Your task to perform on an android device: toggle javascript in the chrome app Image 0: 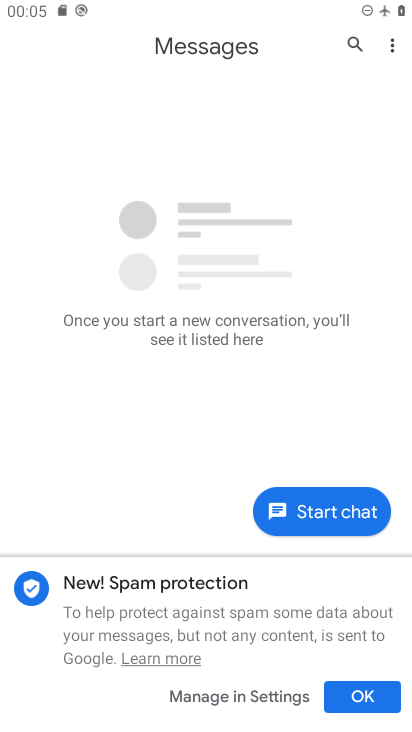
Step 0: press home button
Your task to perform on an android device: toggle javascript in the chrome app Image 1: 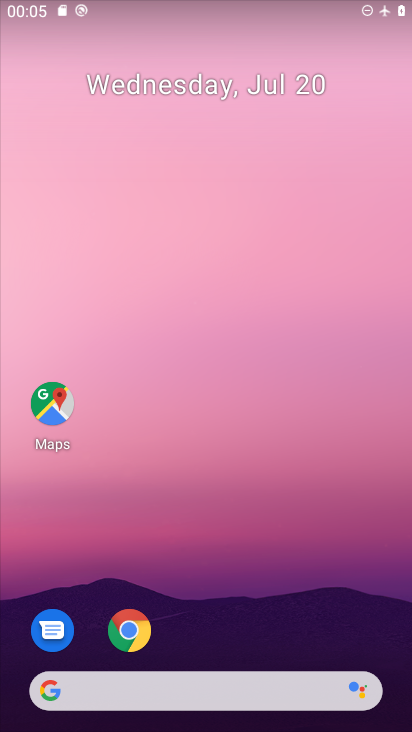
Step 1: click (139, 628)
Your task to perform on an android device: toggle javascript in the chrome app Image 2: 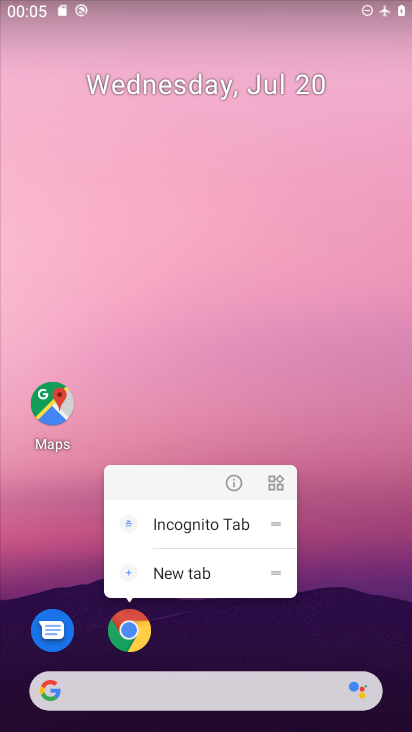
Step 2: click (139, 628)
Your task to perform on an android device: toggle javascript in the chrome app Image 3: 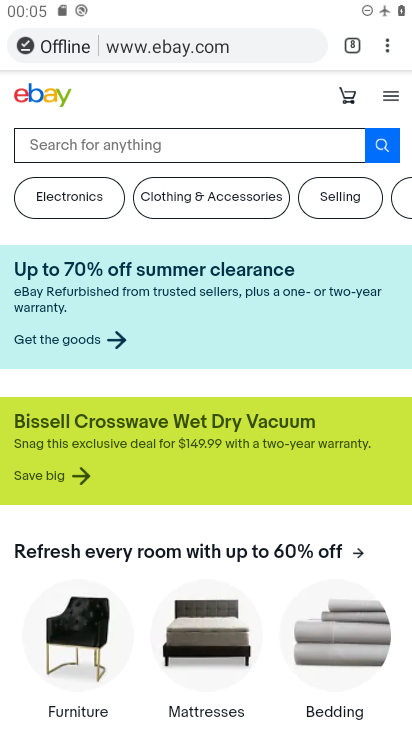
Step 3: click (379, 50)
Your task to perform on an android device: toggle javascript in the chrome app Image 4: 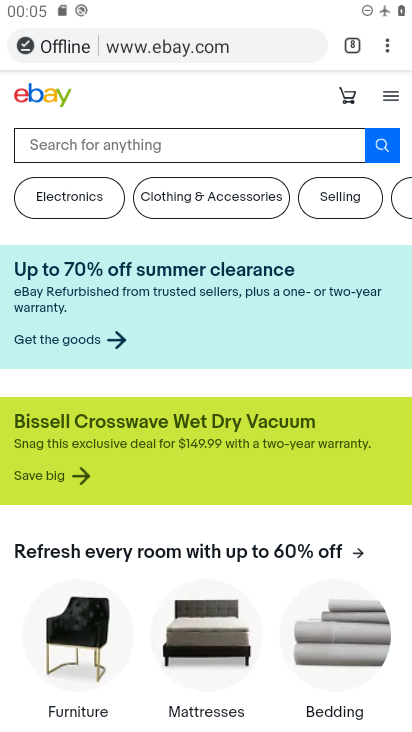
Step 4: click (388, 45)
Your task to perform on an android device: toggle javascript in the chrome app Image 5: 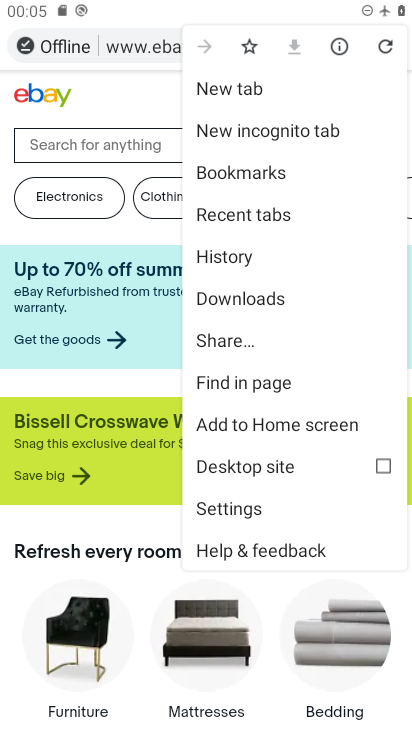
Step 5: click (267, 508)
Your task to perform on an android device: toggle javascript in the chrome app Image 6: 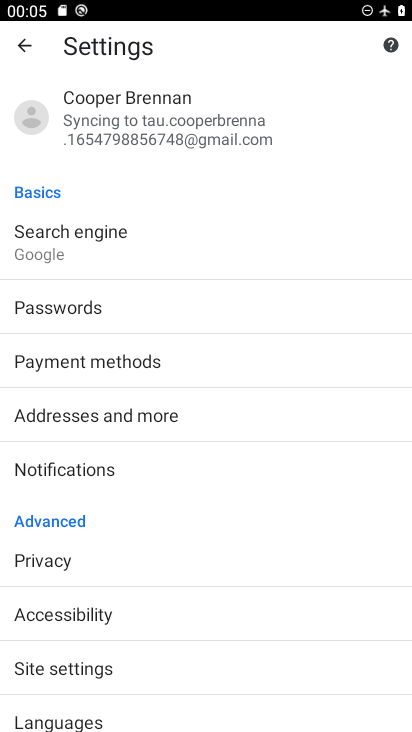
Step 6: drag from (149, 649) to (161, 322)
Your task to perform on an android device: toggle javascript in the chrome app Image 7: 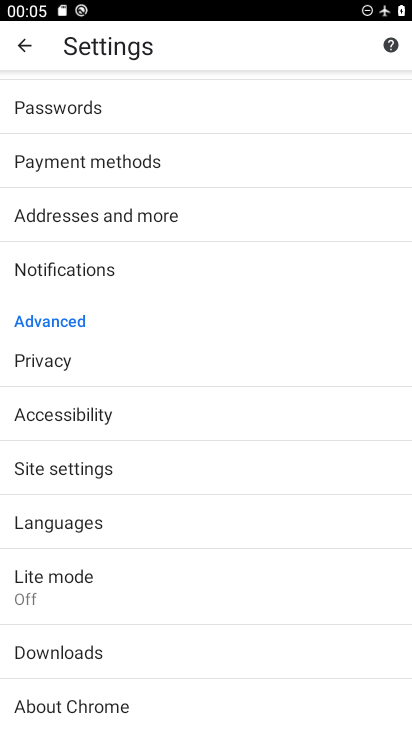
Step 7: click (106, 474)
Your task to perform on an android device: toggle javascript in the chrome app Image 8: 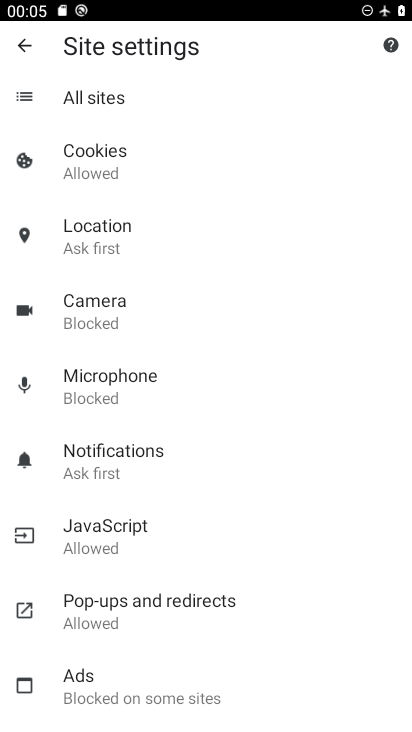
Step 8: click (183, 532)
Your task to perform on an android device: toggle javascript in the chrome app Image 9: 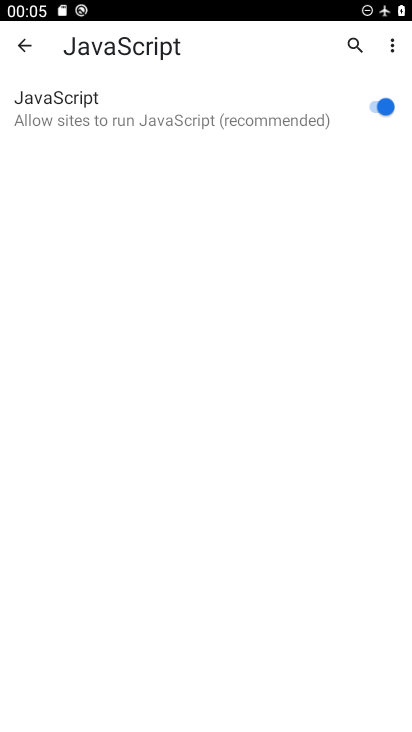
Step 9: click (374, 114)
Your task to perform on an android device: toggle javascript in the chrome app Image 10: 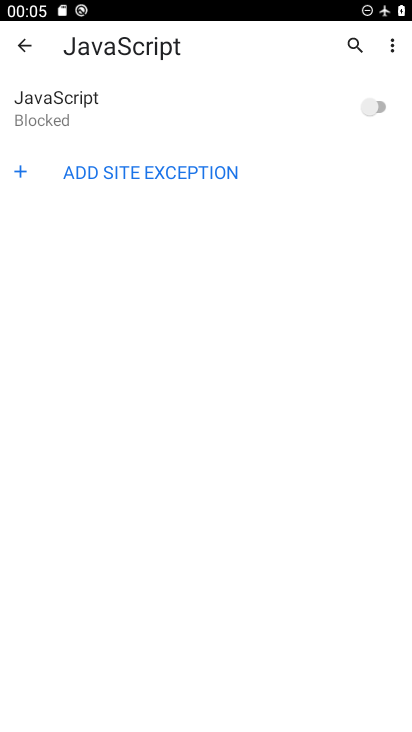
Step 10: task complete